Your task to perform on an android device: Is it going to rain tomorrow? Image 0: 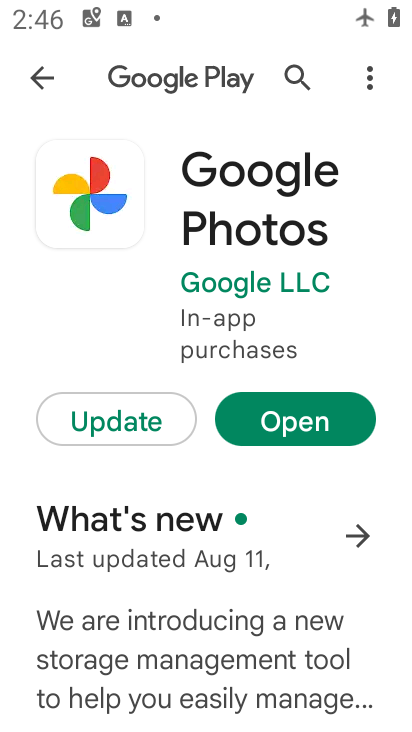
Step 0: press home button
Your task to perform on an android device: Is it going to rain tomorrow? Image 1: 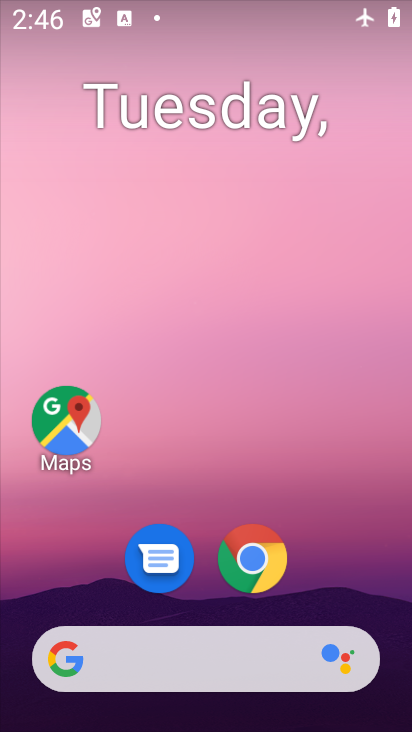
Step 1: drag from (193, 492) to (192, 128)
Your task to perform on an android device: Is it going to rain tomorrow? Image 2: 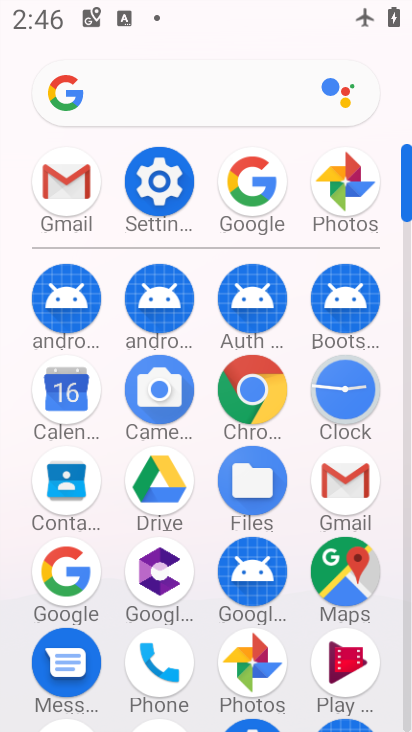
Step 2: click (72, 583)
Your task to perform on an android device: Is it going to rain tomorrow? Image 3: 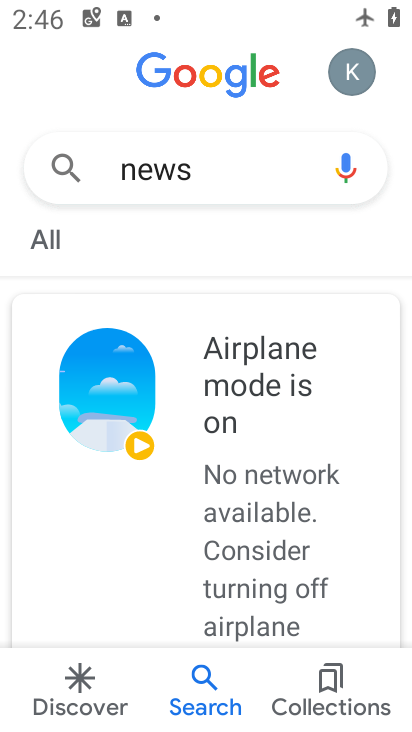
Step 3: click (225, 174)
Your task to perform on an android device: Is it going to rain tomorrow? Image 4: 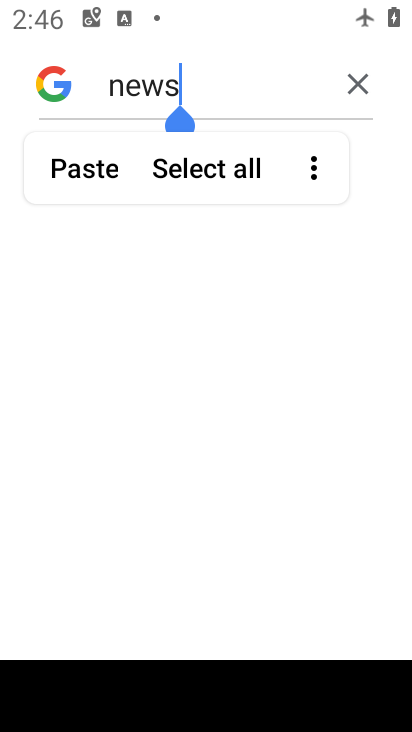
Step 4: click (347, 87)
Your task to perform on an android device: Is it going to rain tomorrow? Image 5: 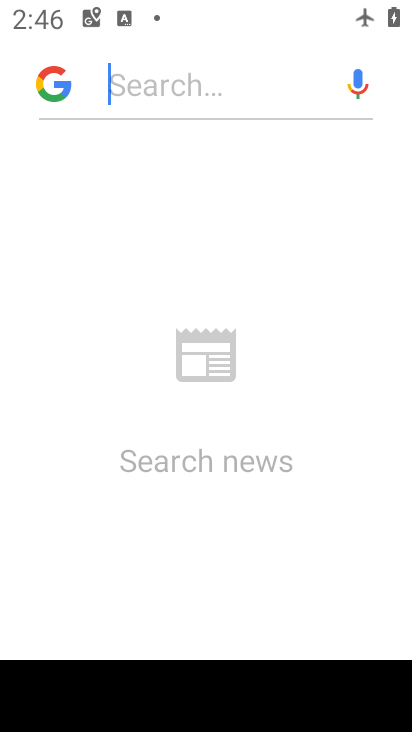
Step 5: click (207, 110)
Your task to perform on an android device: Is it going to rain tomorrow? Image 6: 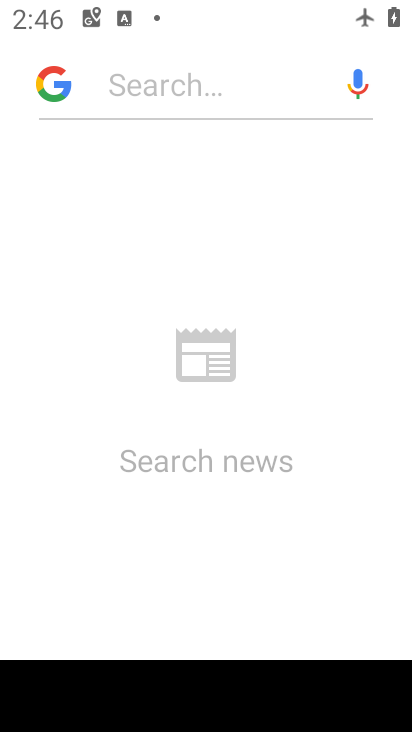
Step 6: type "weather"
Your task to perform on an android device: Is it going to rain tomorrow? Image 7: 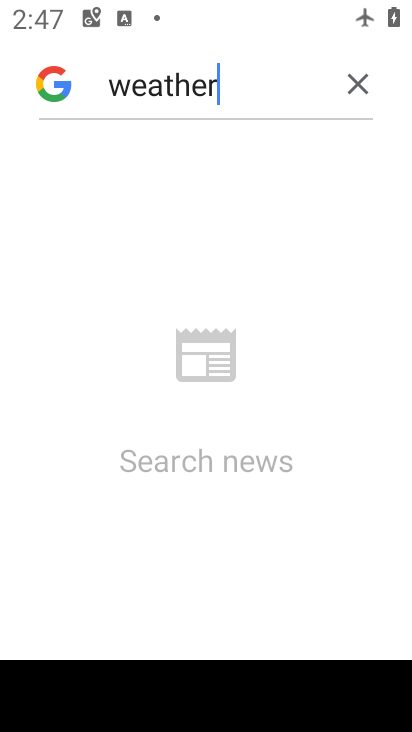
Step 7: type ""
Your task to perform on an android device: Is it going to rain tomorrow? Image 8: 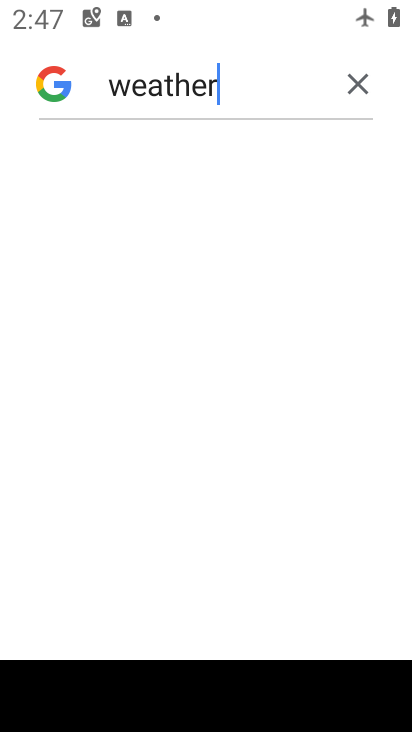
Step 8: task complete